Your task to perform on an android device: turn on location history Image 0: 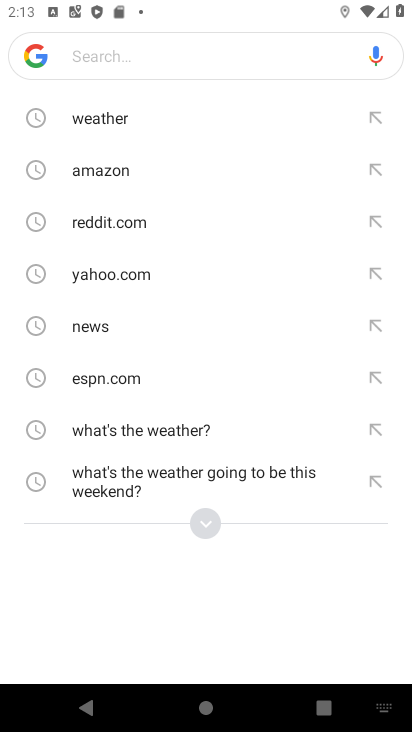
Step 0: press home button
Your task to perform on an android device: turn on location history Image 1: 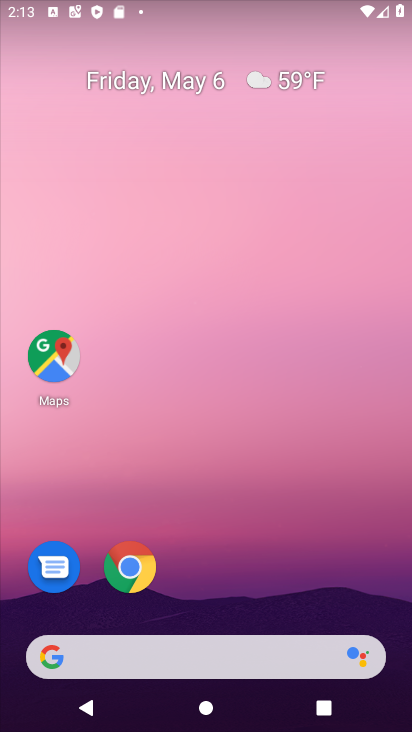
Step 1: drag from (386, 620) to (310, 84)
Your task to perform on an android device: turn on location history Image 2: 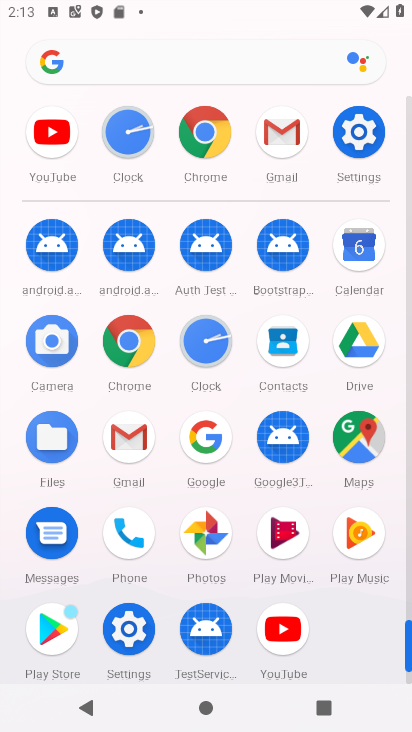
Step 2: click (359, 438)
Your task to perform on an android device: turn on location history Image 3: 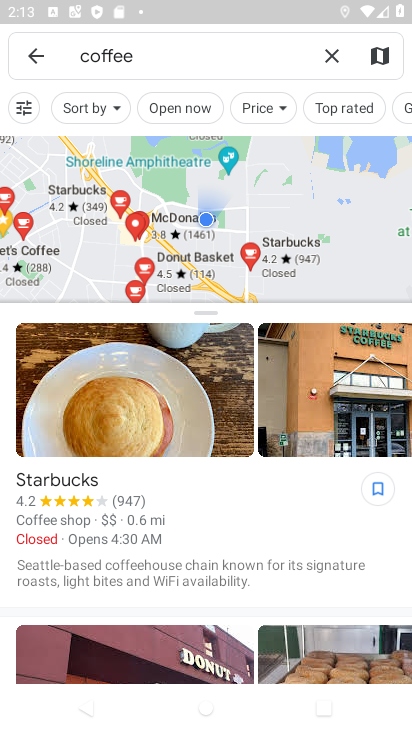
Step 3: press back button
Your task to perform on an android device: turn on location history Image 4: 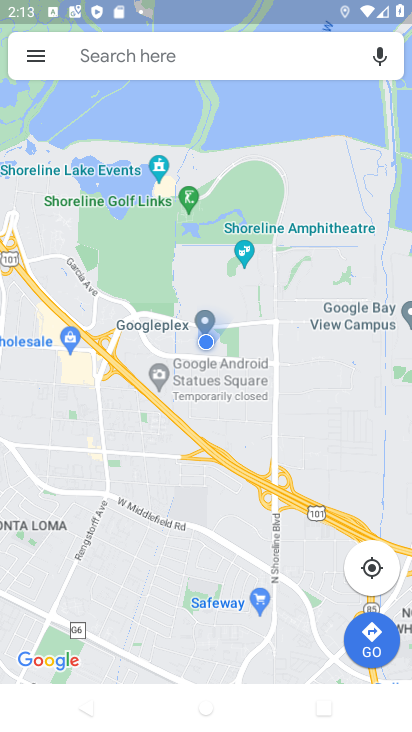
Step 4: click (29, 48)
Your task to perform on an android device: turn on location history Image 5: 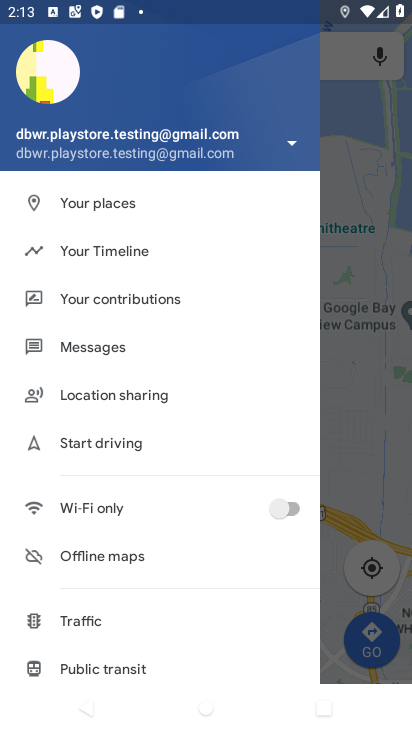
Step 5: drag from (169, 643) to (211, 213)
Your task to perform on an android device: turn on location history Image 6: 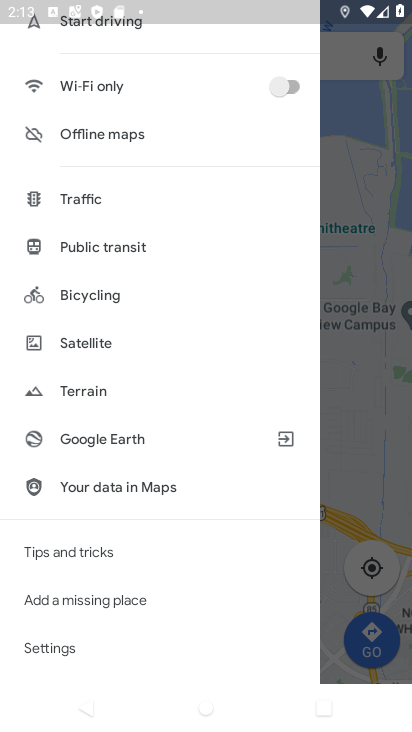
Step 6: click (43, 640)
Your task to perform on an android device: turn on location history Image 7: 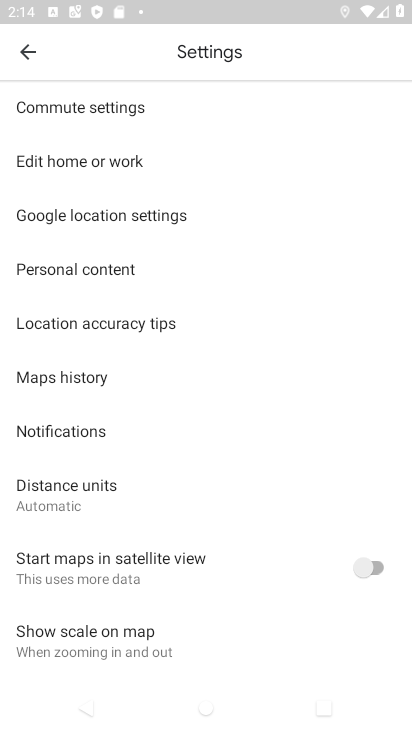
Step 7: click (73, 262)
Your task to perform on an android device: turn on location history Image 8: 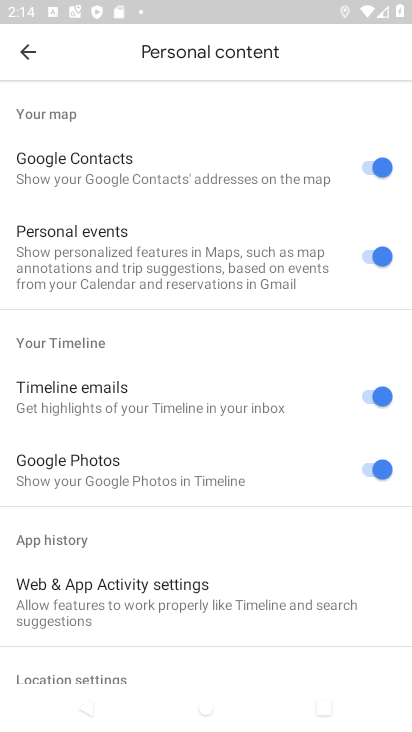
Step 8: drag from (299, 609) to (274, 173)
Your task to perform on an android device: turn on location history Image 9: 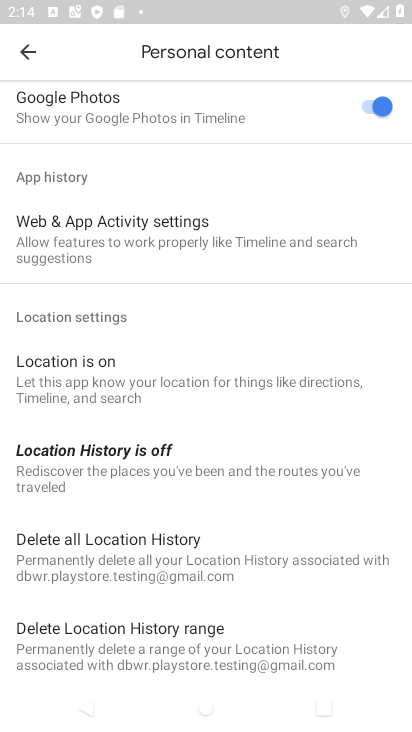
Step 9: click (65, 451)
Your task to perform on an android device: turn on location history Image 10: 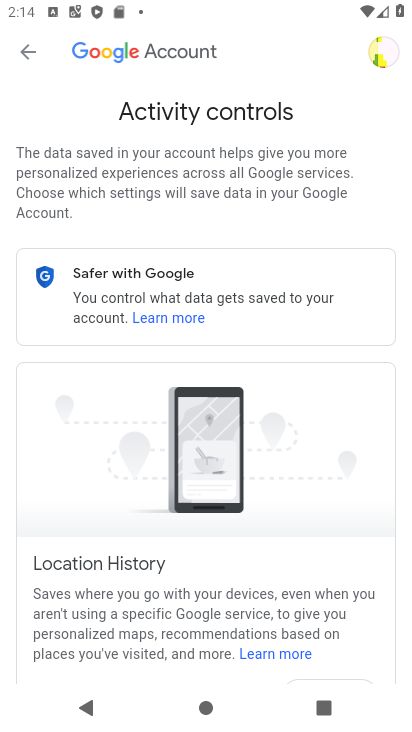
Step 10: drag from (298, 570) to (289, 144)
Your task to perform on an android device: turn on location history Image 11: 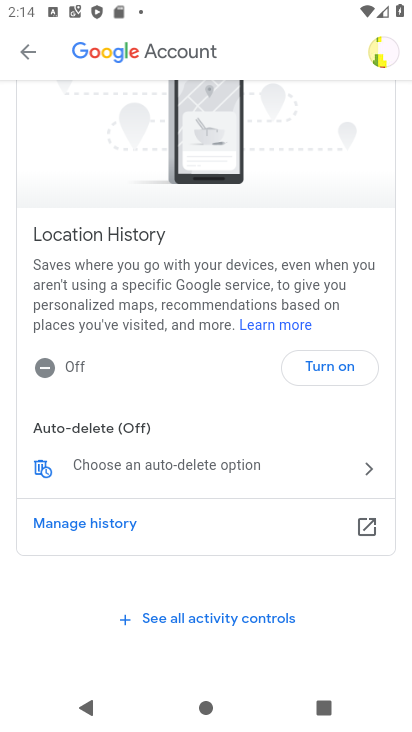
Step 11: click (321, 368)
Your task to perform on an android device: turn on location history Image 12: 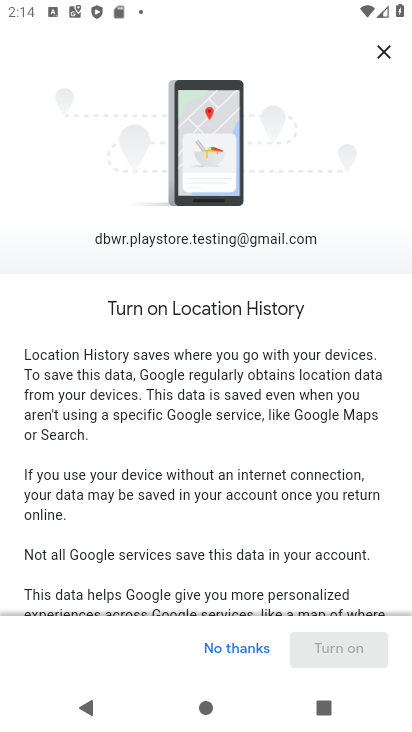
Step 12: drag from (261, 548) to (287, 58)
Your task to perform on an android device: turn on location history Image 13: 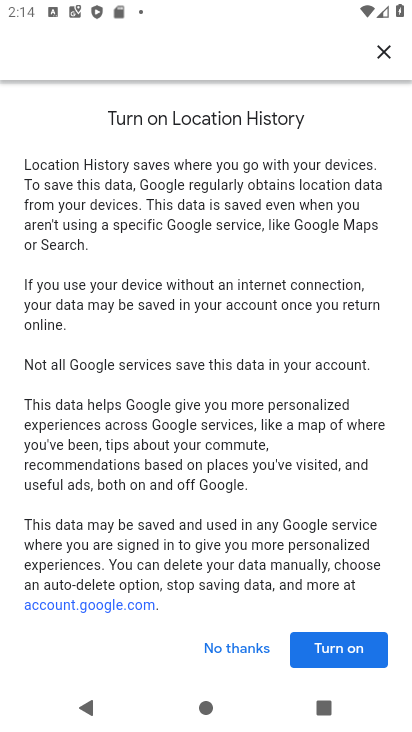
Step 13: click (340, 651)
Your task to perform on an android device: turn on location history Image 14: 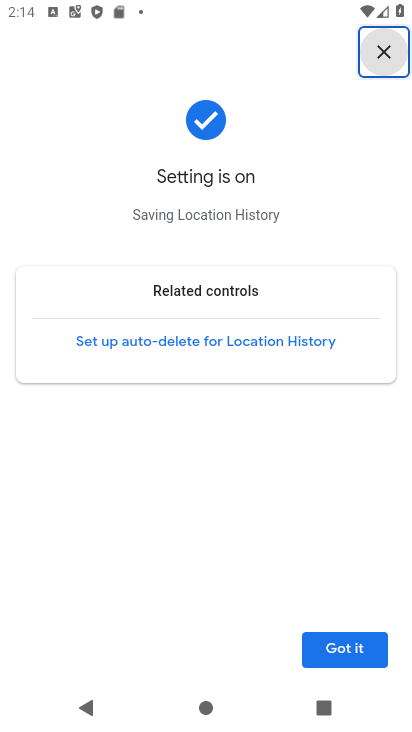
Step 14: click (340, 651)
Your task to perform on an android device: turn on location history Image 15: 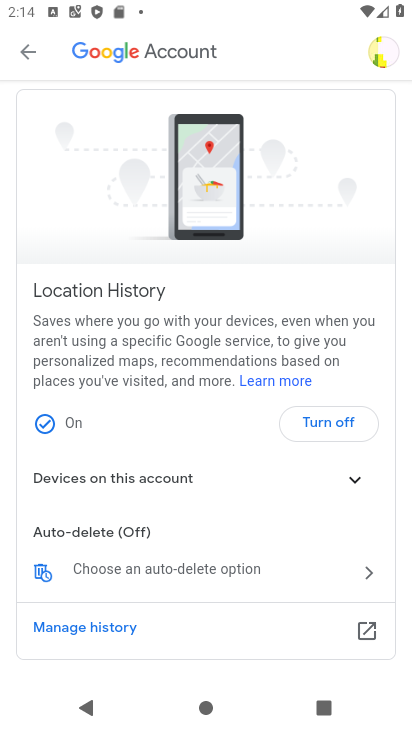
Step 15: task complete